Your task to perform on an android device: Is it going to rain this weekend? Image 0: 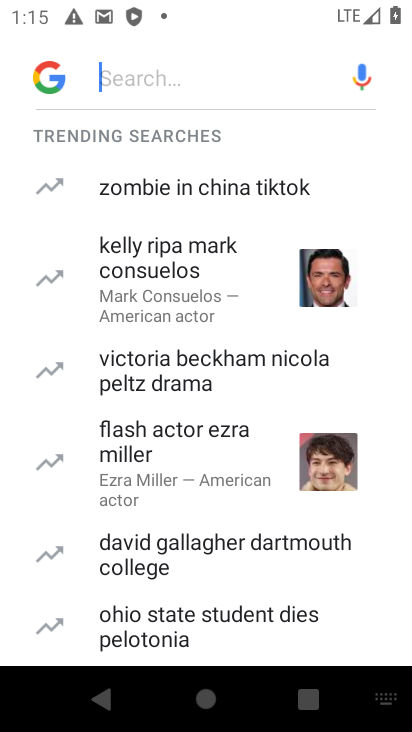
Step 0: type "Is it going to rain this weekend?"
Your task to perform on an android device: Is it going to rain this weekend? Image 1: 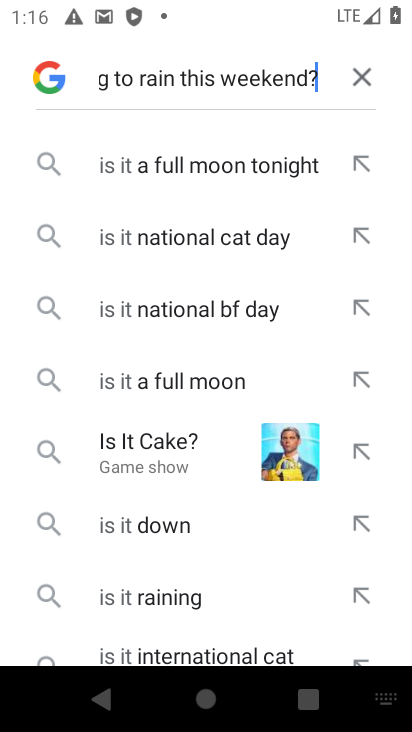
Step 1: press enter
Your task to perform on an android device: Is it going to rain this weekend? Image 2: 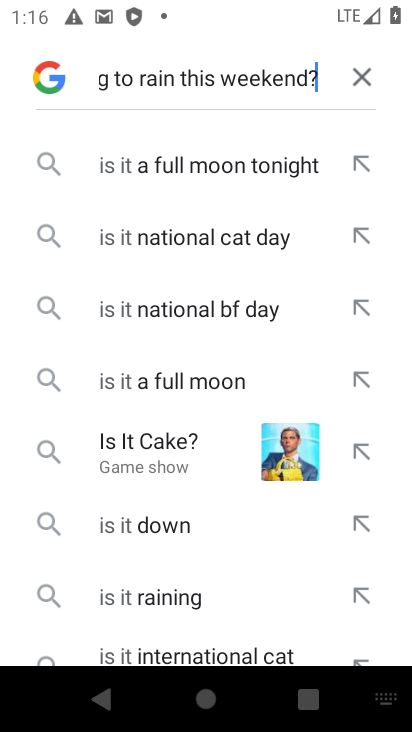
Step 2: type ""
Your task to perform on an android device: Is it going to rain this weekend? Image 3: 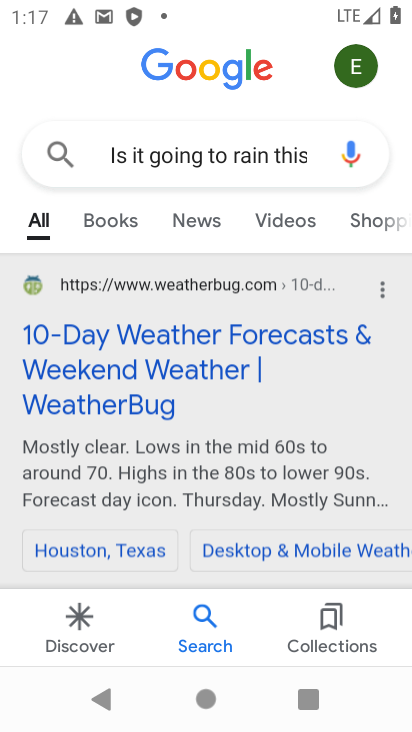
Step 3: task complete